Your task to perform on an android device: Open my contact list Image 0: 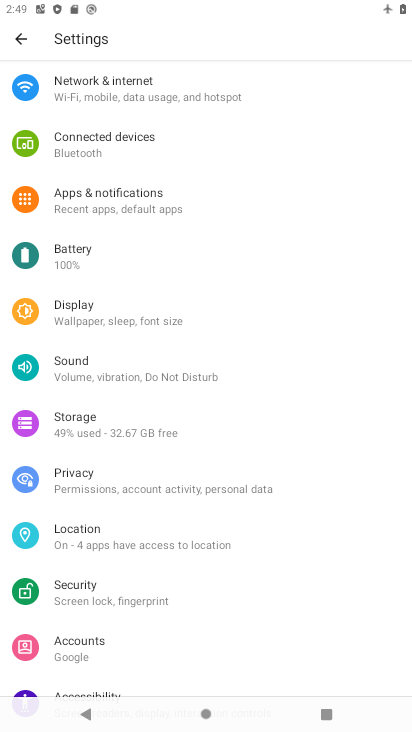
Step 0: press home button
Your task to perform on an android device: Open my contact list Image 1: 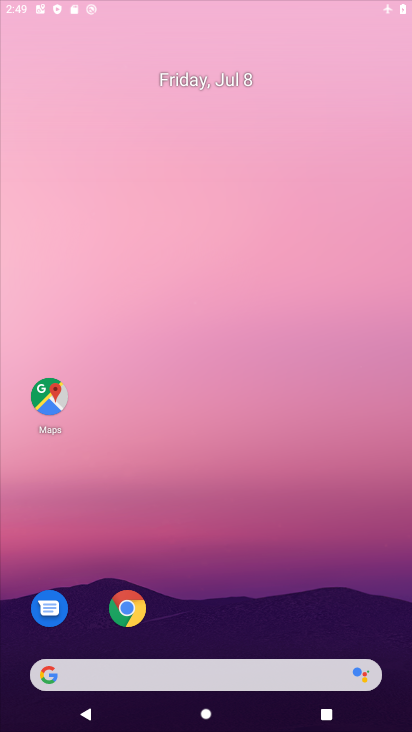
Step 1: drag from (264, 680) to (270, 58)
Your task to perform on an android device: Open my contact list Image 2: 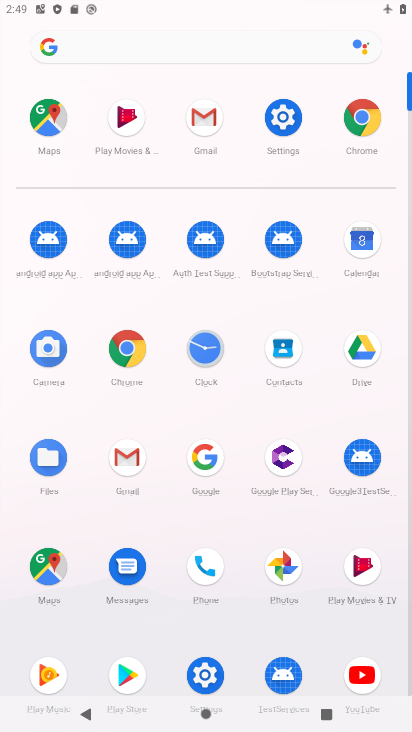
Step 2: click (293, 346)
Your task to perform on an android device: Open my contact list Image 3: 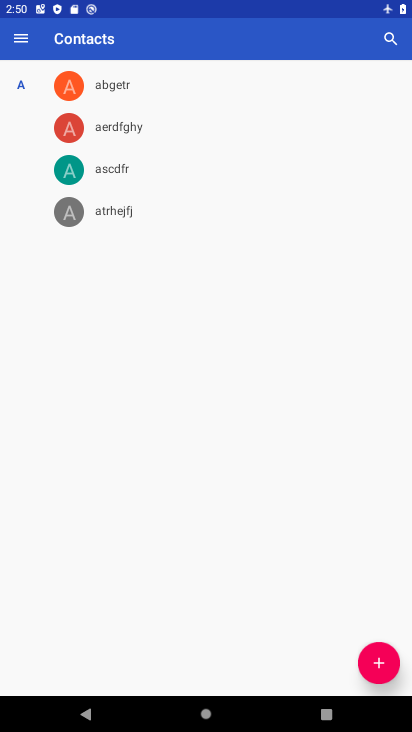
Step 3: task complete